Your task to perform on an android device: Go to Google Image 0: 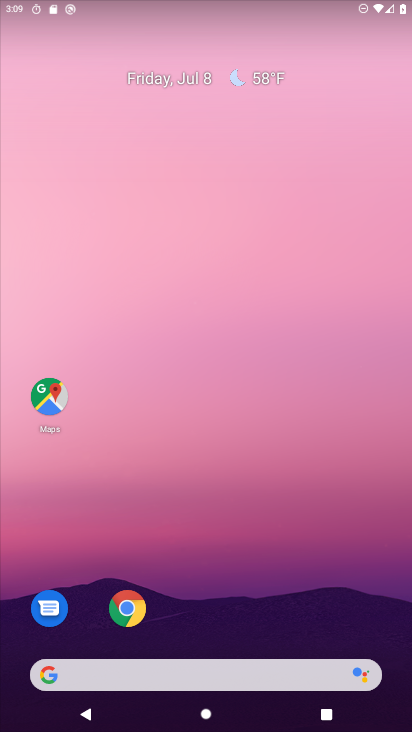
Step 0: drag from (251, 726) to (238, 87)
Your task to perform on an android device: Go to Google Image 1: 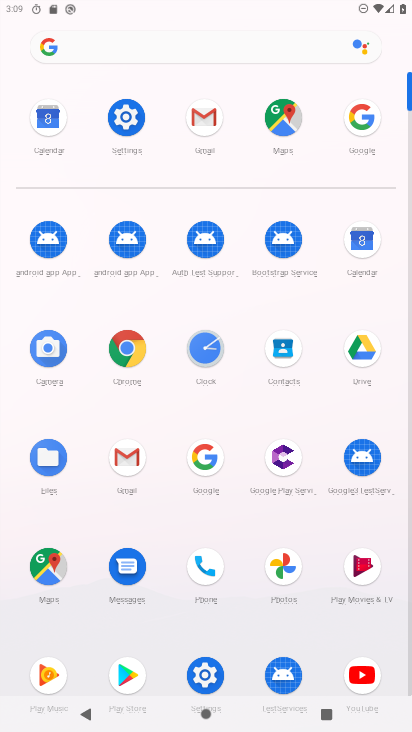
Step 1: click (207, 454)
Your task to perform on an android device: Go to Google Image 2: 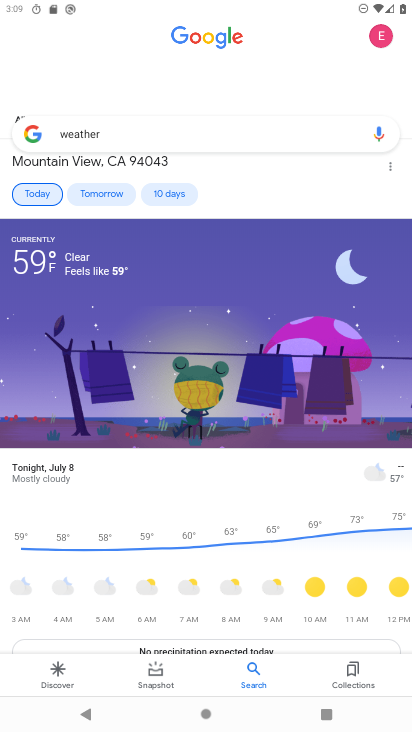
Step 2: task complete